Your task to perform on an android device: move a message to another label in the gmail app Image 0: 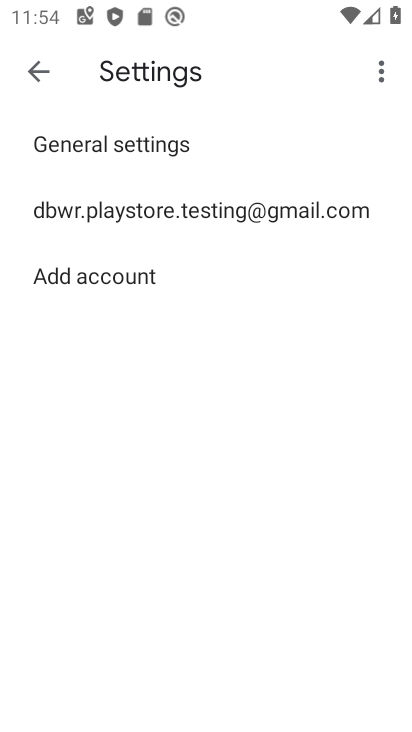
Step 0: click (41, 78)
Your task to perform on an android device: move a message to another label in the gmail app Image 1: 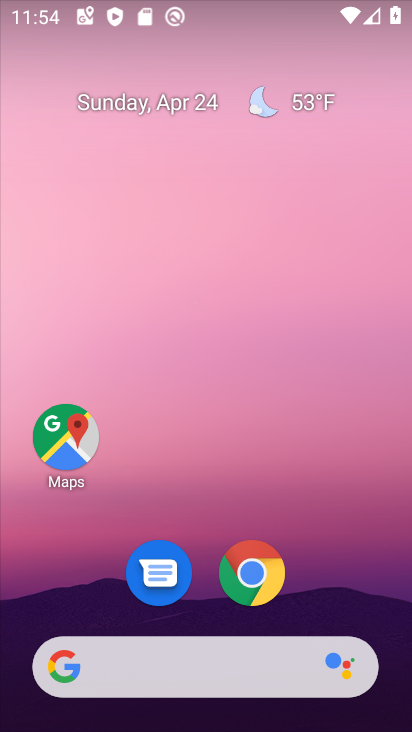
Step 1: drag from (333, 373) to (310, 48)
Your task to perform on an android device: move a message to another label in the gmail app Image 2: 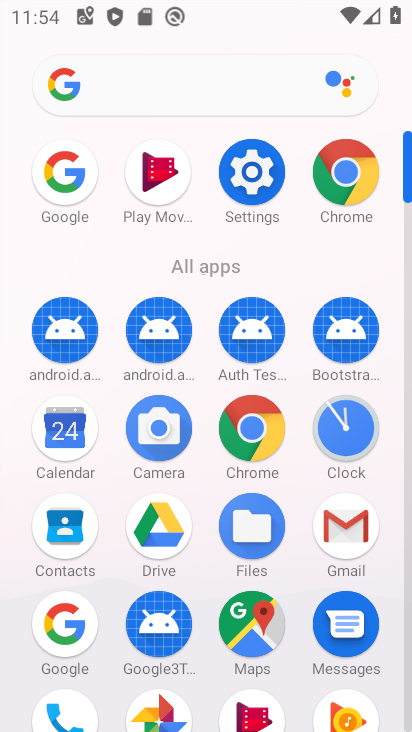
Step 2: click (348, 542)
Your task to perform on an android device: move a message to another label in the gmail app Image 3: 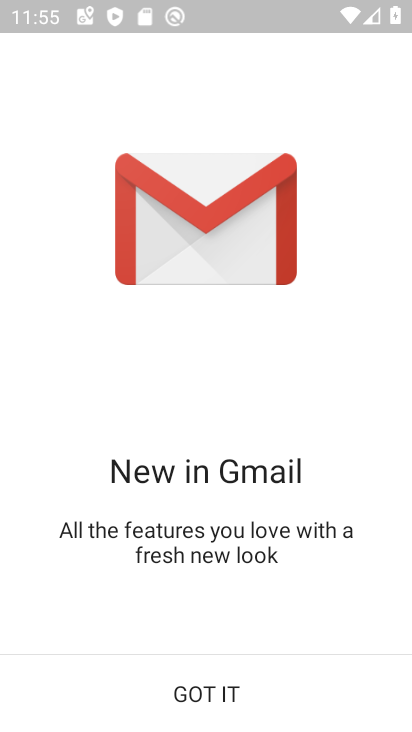
Step 3: click (202, 682)
Your task to perform on an android device: move a message to another label in the gmail app Image 4: 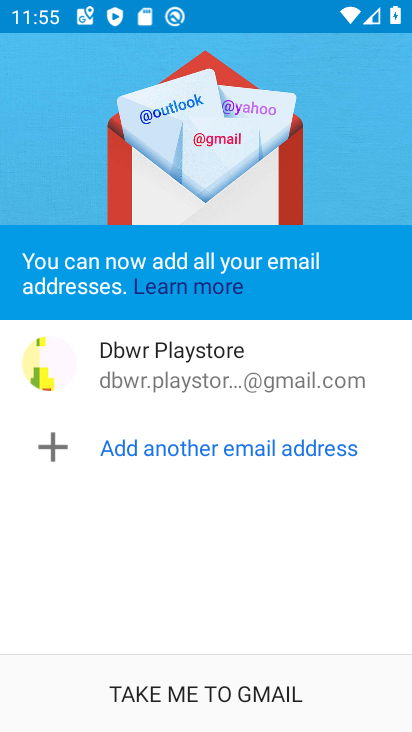
Step 4: click (147, 691)
Your task to perform on an android device: move a message to another label in the gmail app Image 5: 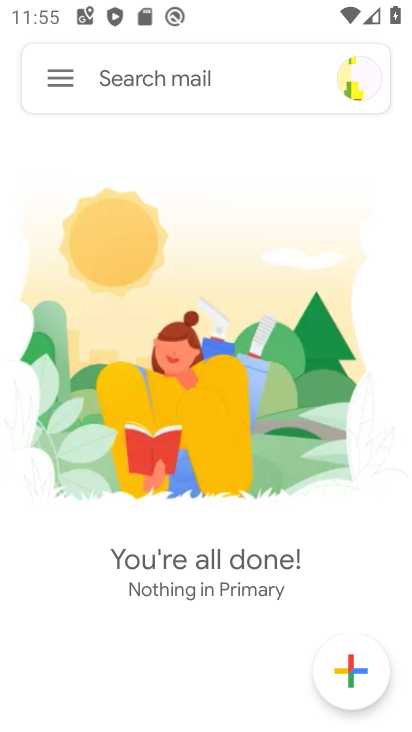
Step 5: click (66, 93)
Your task to perform on an android device: move a message to another label in the gmail app Image 6: 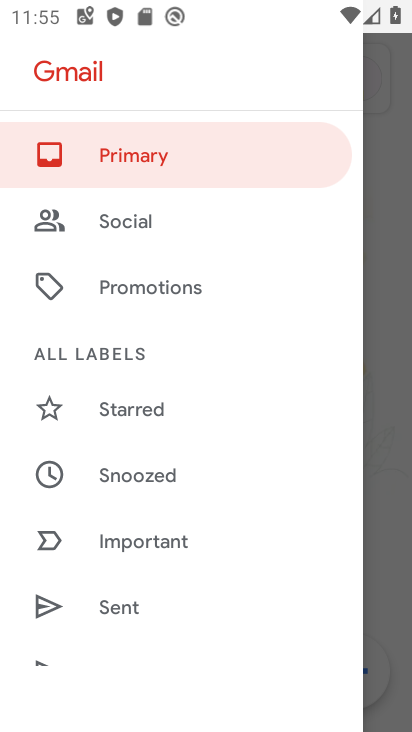
Step 6: drag from (192, 519) to (285, 180)
Your task to perform on an android device: move a message to another label in the gmail app Image 7: 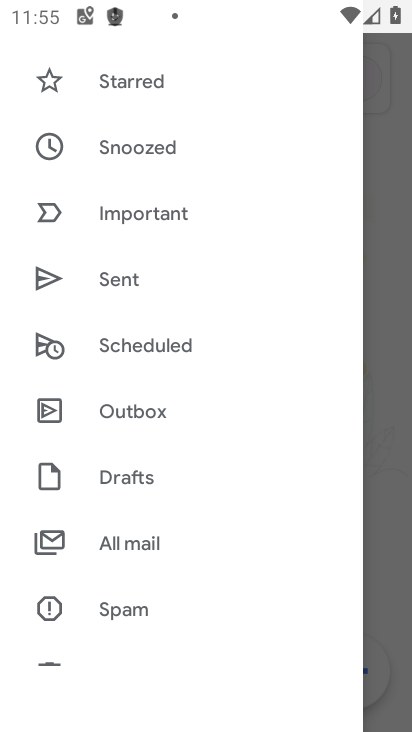
Step 7: drag from (213, 335) to (180, 495)
Your task to perform on an android device: move a message to another label in the gmail app Image 8: 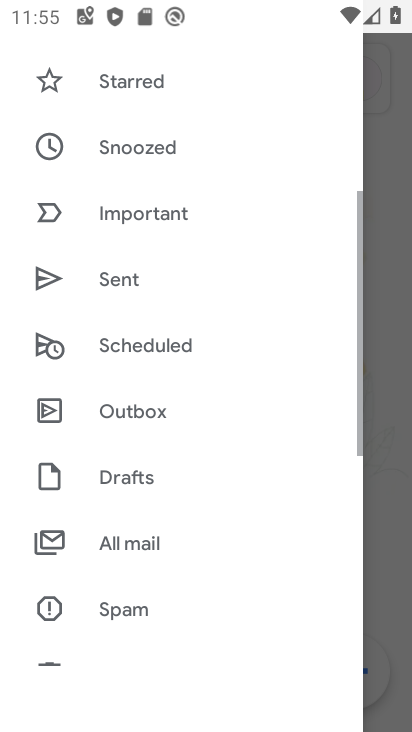
Step 8: drag from (252, 258) to (195, 501)
Your task to perform on an android device: move a message to another label in the gmail app Image 9: 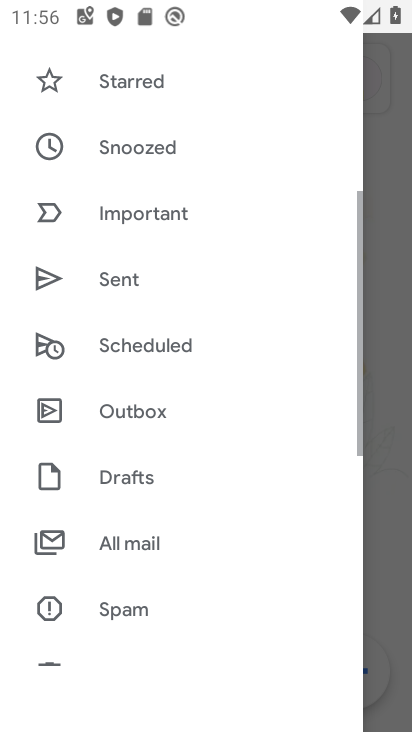
Step 9: drag from (269, 215) to (231, 553)
Your task to perform on an android device: move a message to another label in the gmail app Image 10: 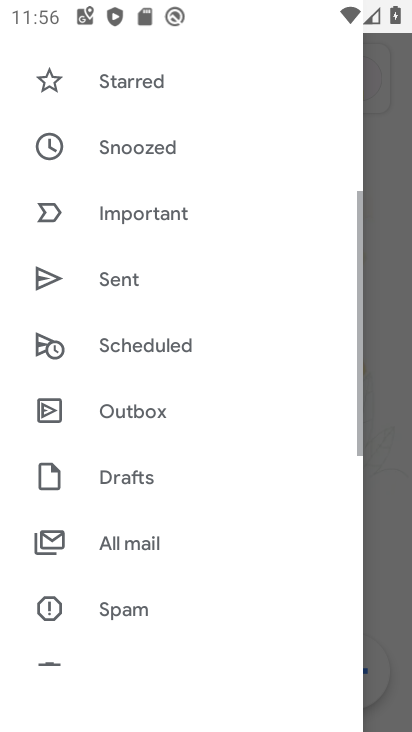
Step 10: drag from (151, 424) to (129, 596)
Your task to perform on an android device: move a message to another label in the gmail app Image 11: 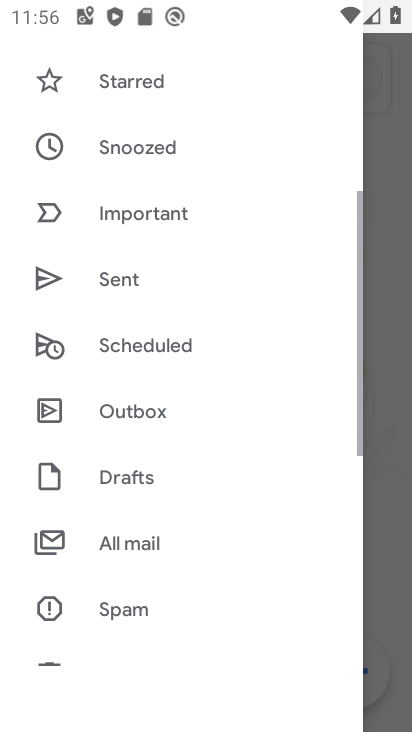
Step 11: click (139, 542)
Your task to perform on an android device: move a message to another label in the gmail app Image 12: 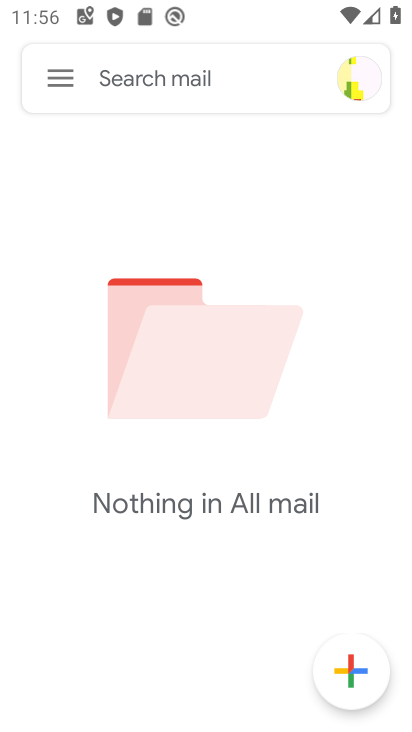
Step 12: task complete